Your task to perform on an android device: change notifications settings Image 0: 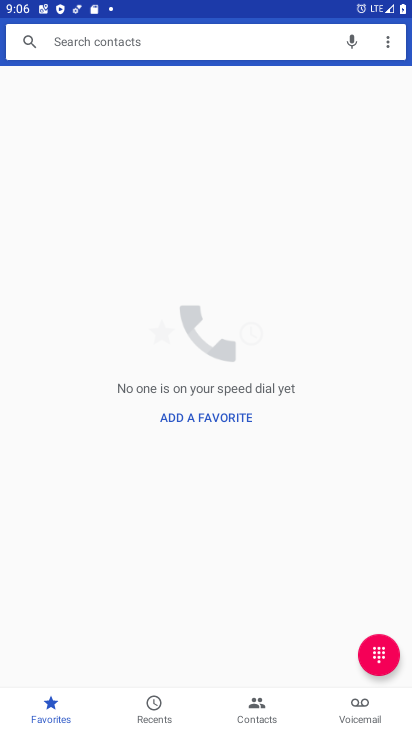
Step 0: press home button
Your task to perform on an android device: change notifications settings Image 1: 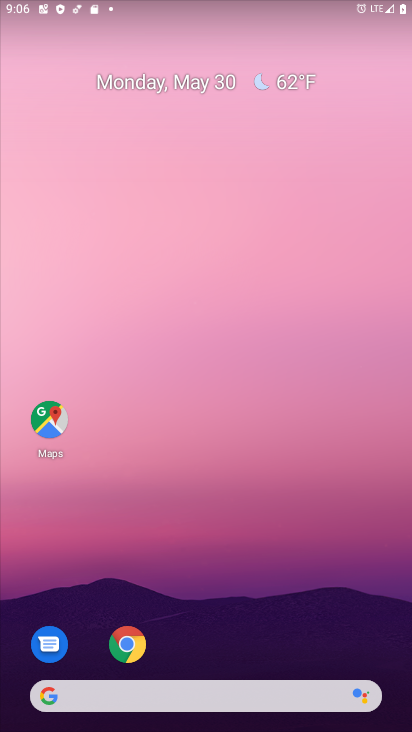
Step 1: drag from (376, 656) to (320, 84)
Your task to perform on an android device: change notifications settings Image 2: 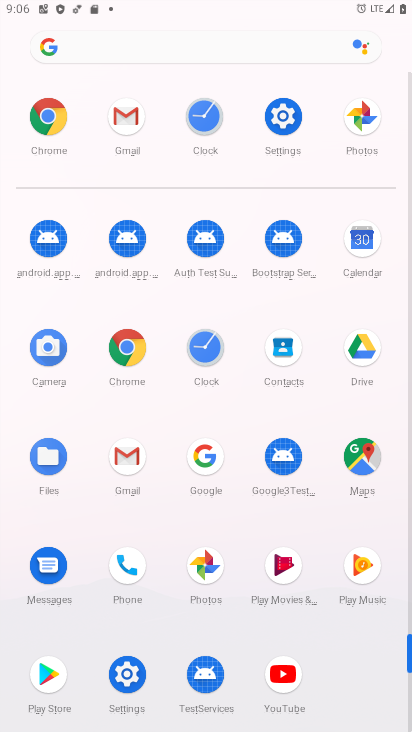
Step 2: click (126, 676)
Your task to perform on an android device: change notifications settings Image 3: 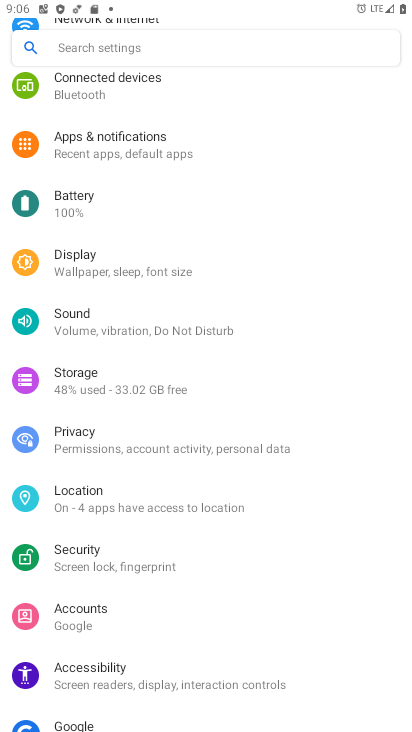
Step 3: click (114, 131)
Your task to perform on an android device: change notifications settings Image 4: 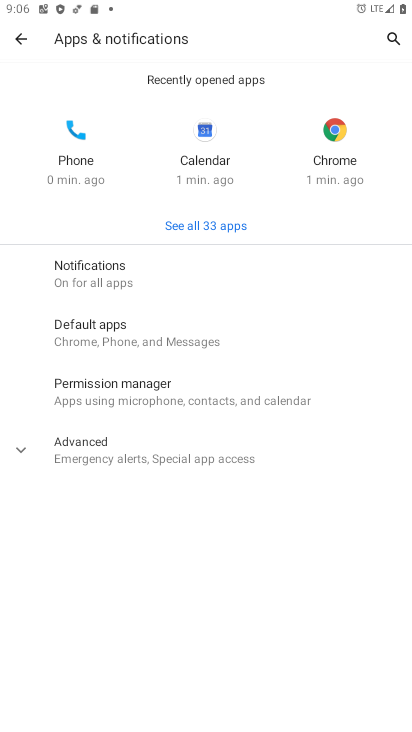
Step 4: click (109, 277)
Your task to perform on an android device: change notifications settings Image 5: 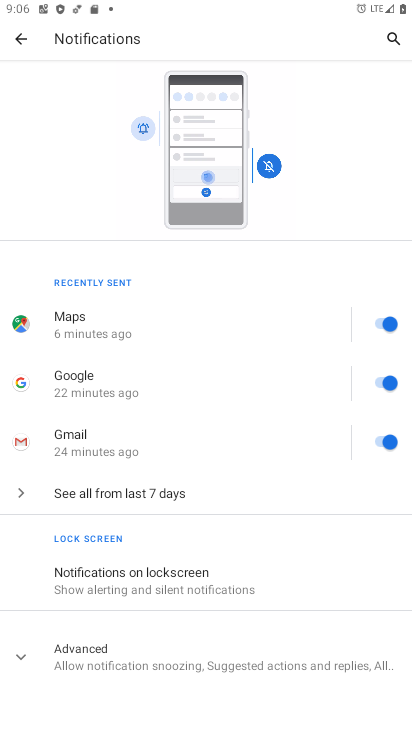
Step 5: drag from (277, 618) to (272, 354)
Your task to perform on an android device: change notifications settings Image 6: 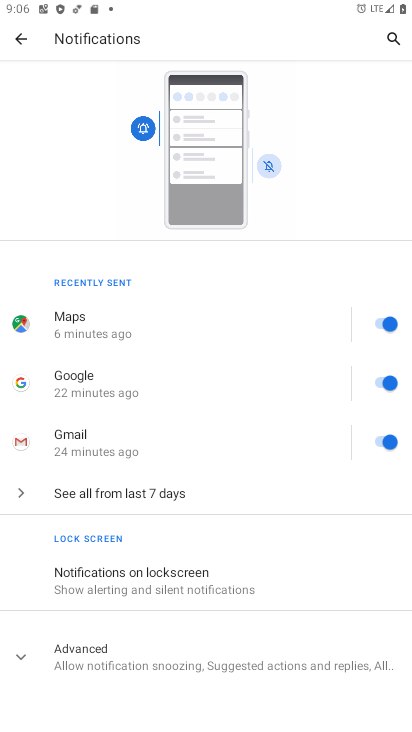
Step 6: click (16, 656)
Your task to perform on an android device: change notifications settings Image 7: 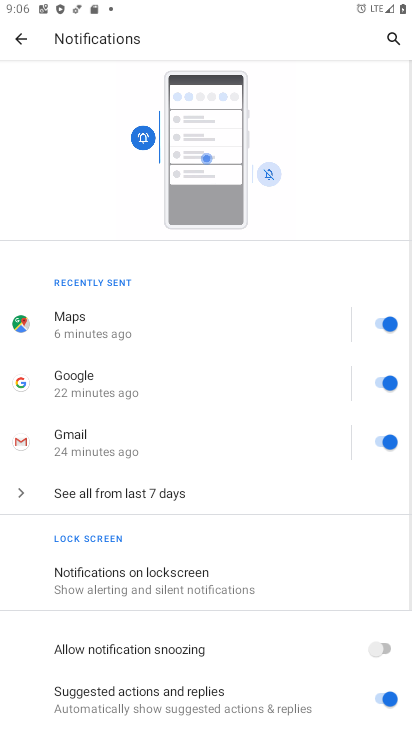
Step 7: task complete